Your task to perform on an android device: find which apps use the phone's location Image 0: 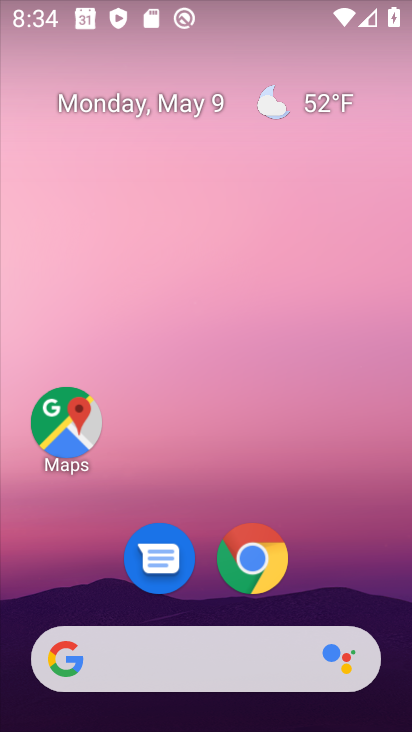
Step 0: drag from (187, 596) to (297, 111)
Your task to perform on an android device: find which apps use the phone's location Image 1: 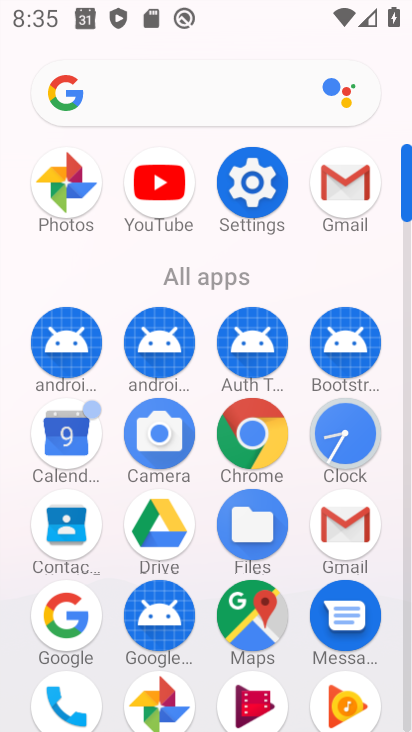
Step 1: click (258, 165)
Your task to perform on an android device: find which apps use the phone's location Image 2: 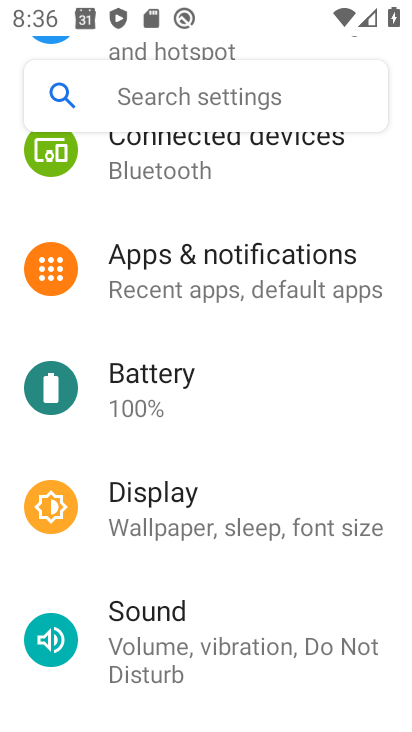
Step 2: drag from (198, 616) to (286, 90)
Your task to perform on an android device: find which apps use the phone's location Image 3: 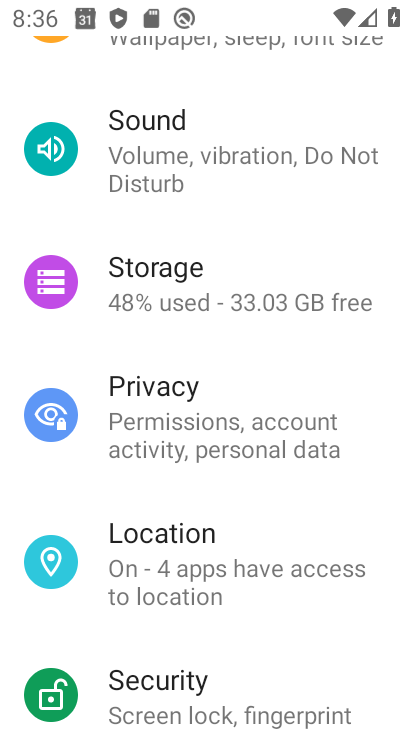
Step 3: click (153, 568)
Your task to perform on an android device: find which apps use the phone's location Image 4: 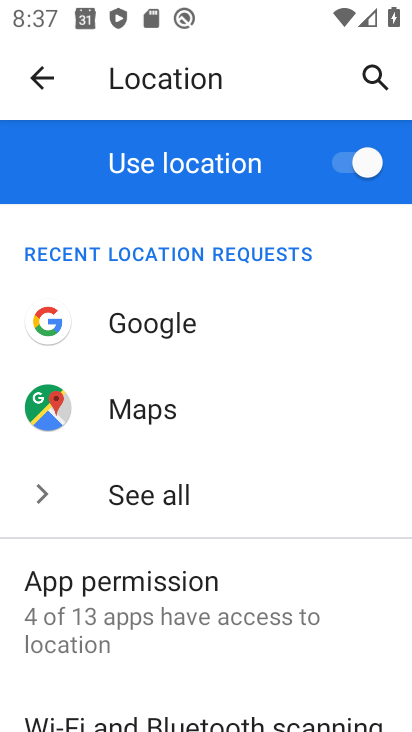
Step 4: drag from (176, 630) to (225, 389)
Your task to perform on an android device: find which apps use the phone's location Image 5: 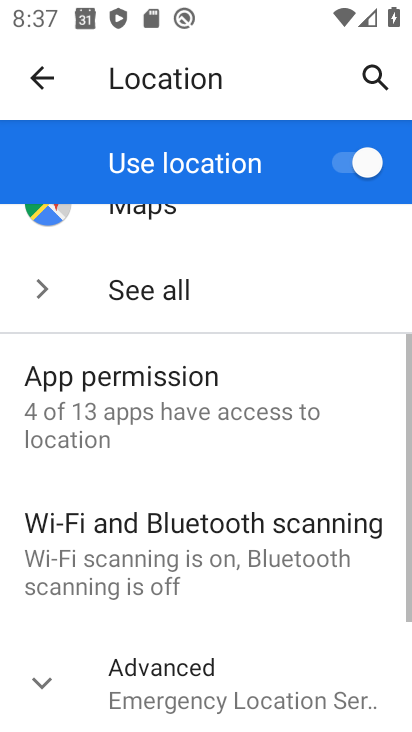
Step 5: click (129, 430)
Your task to perform on an android device: find which apps use the phone's location Image 6: 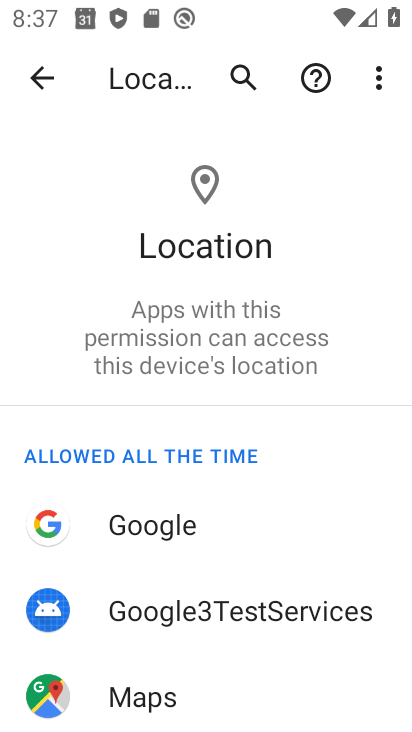
Step 6: task complete